Your task to perform on an android device: Open sound settings Image 0: 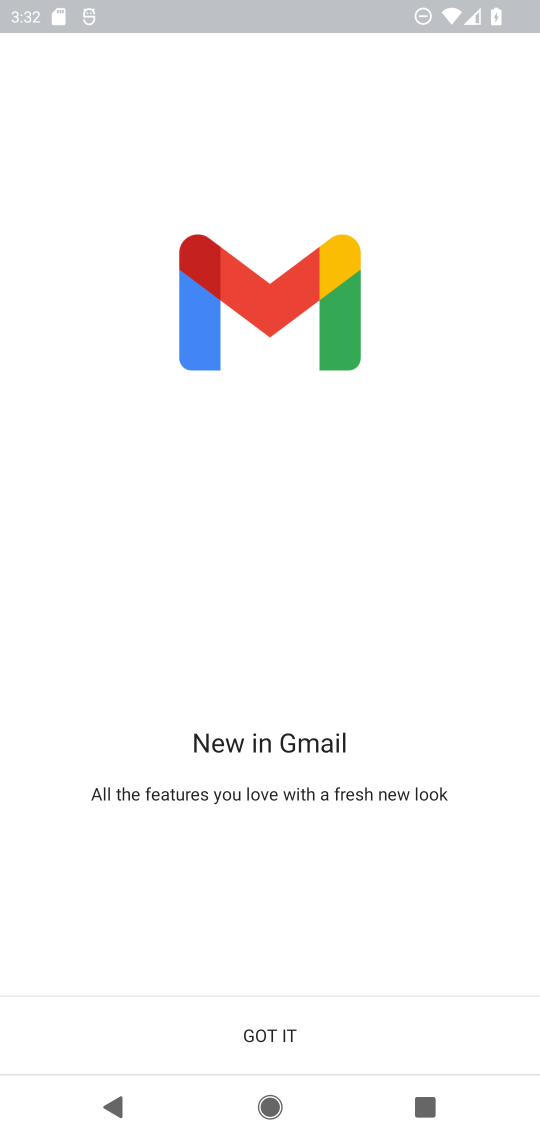
Step 0: press home button
Your task to perform on an android device: Open sound settings Image 1: 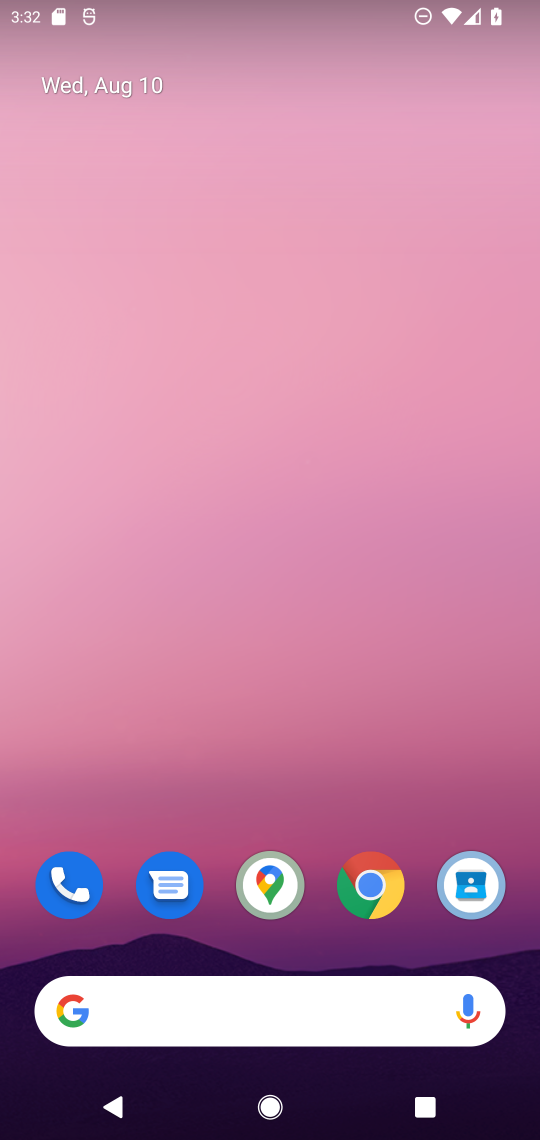
Step 1: drag from (241, 939) to (240, 246)
Your task to perform on an android device: Open sound settings Image 2: 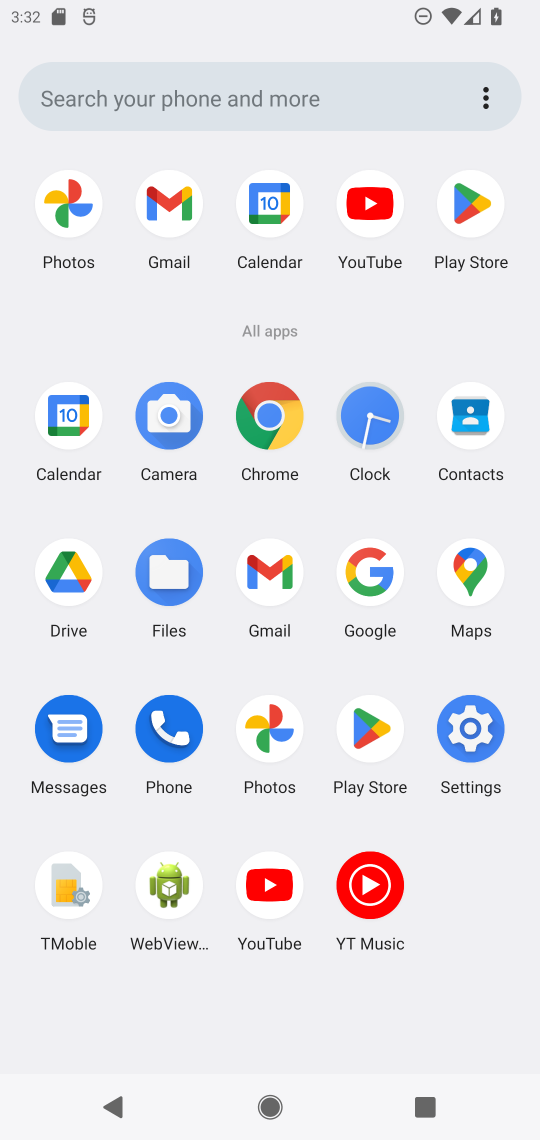
Step 2: click (466, 725)
Your task to perform on an android device: Open sound settings Image 3: 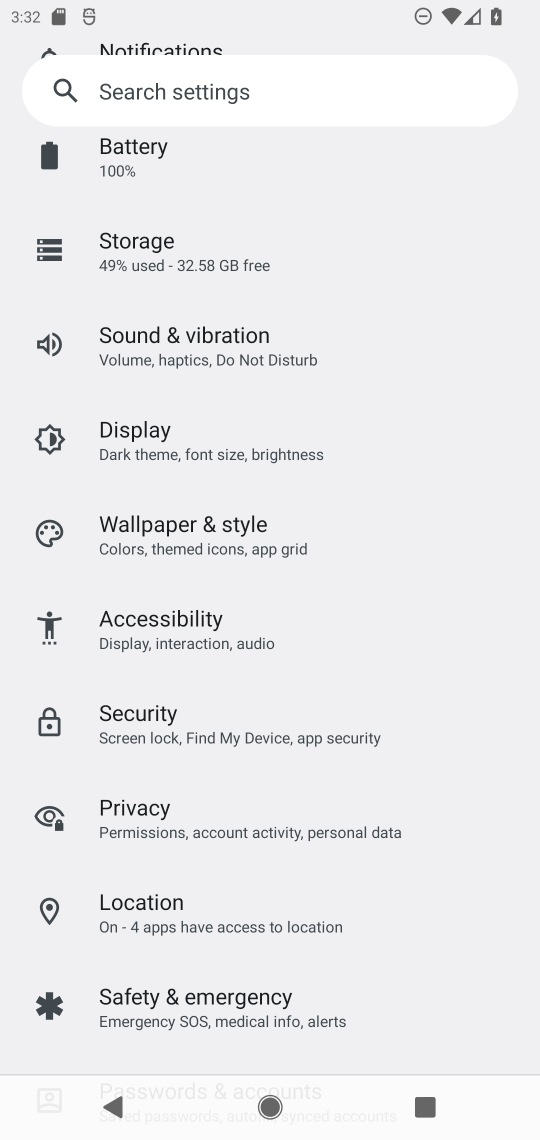
Step 3: click (145, 333)
Your task to perform on an android device: Open sound settings Image 4: 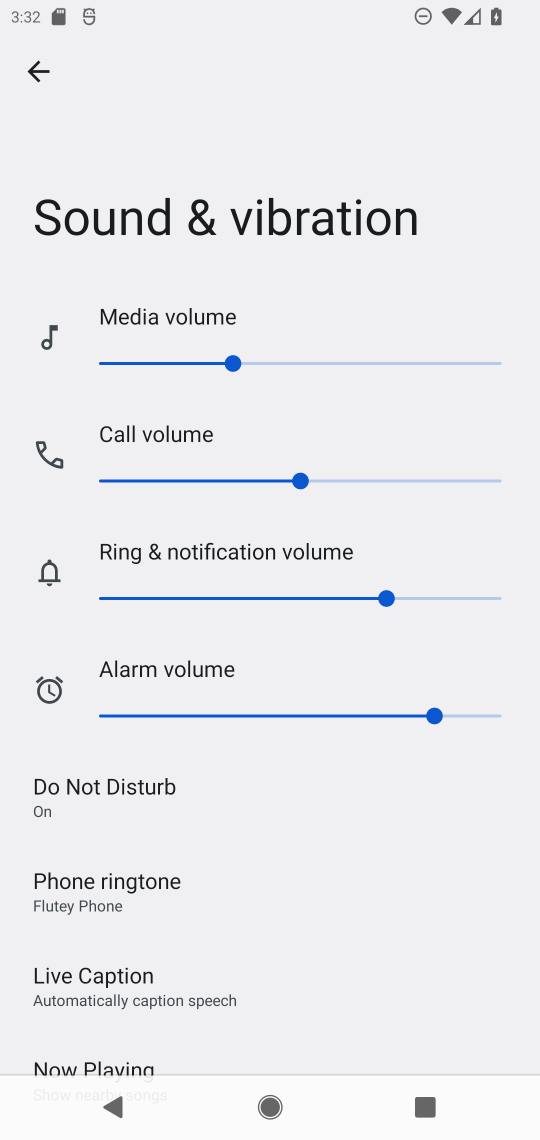
Step 4: task complete